Your task to perform on an android device: Open notification settings Image 0: 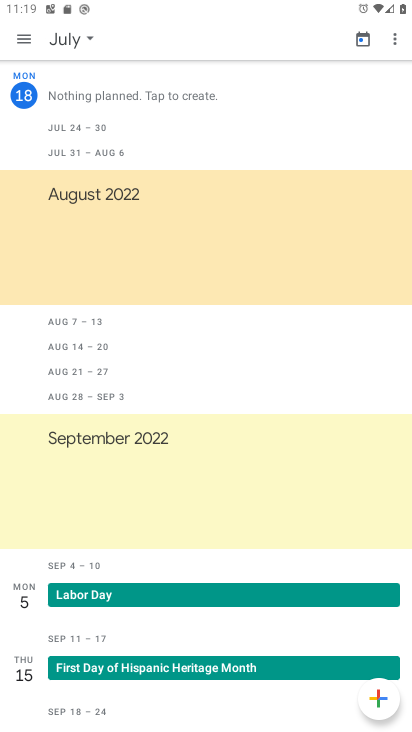
Step 0: press home button
Your task to perform on an android device: Open notification settings Image 1: 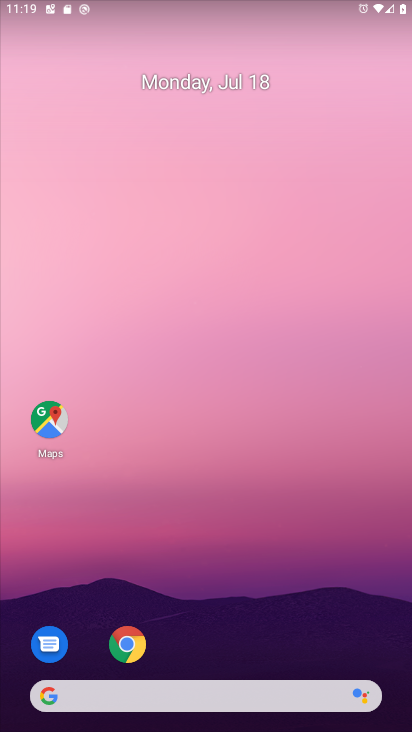
Step 1: drag from (202, 654) to (223, 145)
Your task to perform on an android device: Open notification settings Image 2: 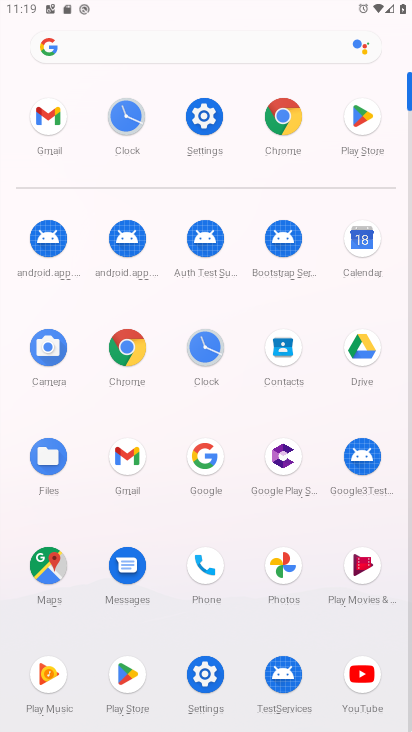
Step 2: click (210, 125)
Your task to perform on an android device: Open notification settings Image 3: 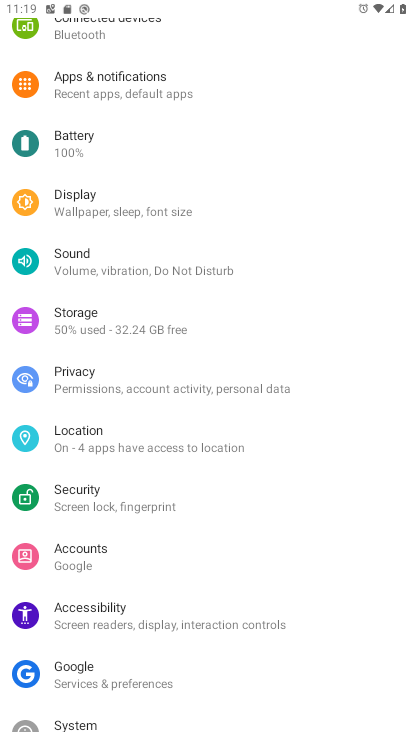
Step 3: drag from (184, 175) to (143, 701)
Your task to perform on an android device: Open notification settings Image 4: 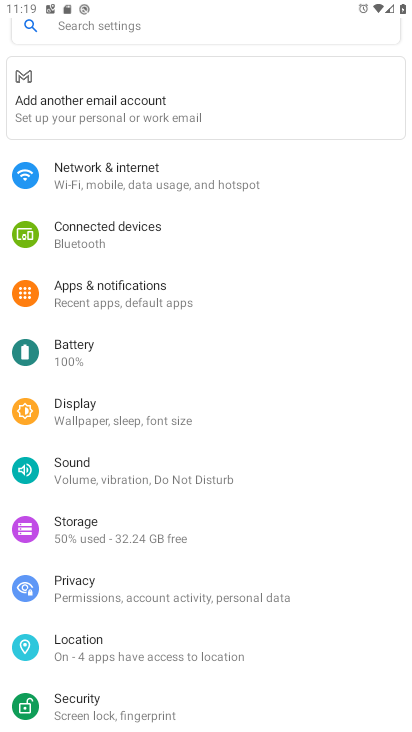
Step 4: click (162, 295)
Your task to perform on an android device: Open notification settings Image 5: 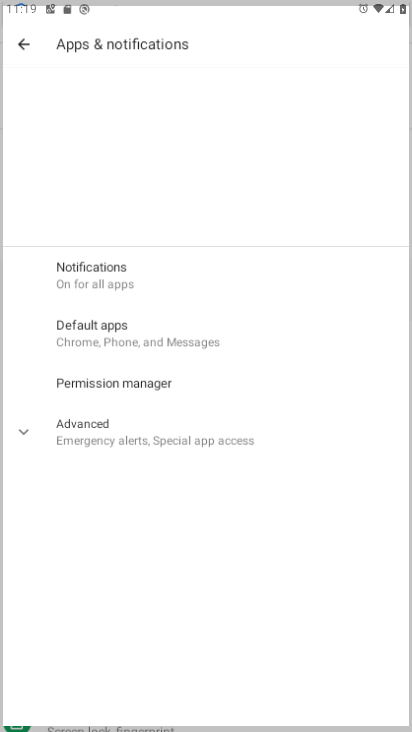
Step 5: task complete